Your task to perform on an android device: turn off wifi Image 0: 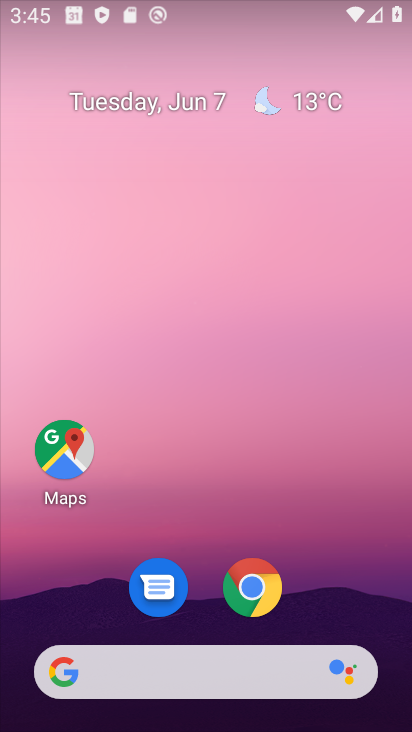
Step 0: drag from (198, 671) to (272, 0)
Your task to perform on an android device: turn off wifi Image 1: 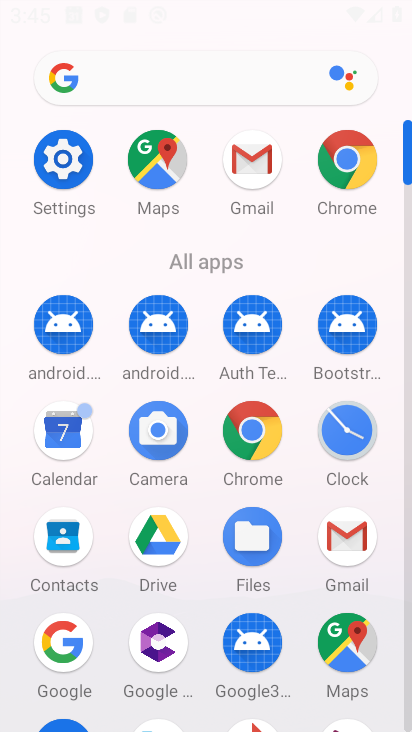
Step 1: click (82, 174)
Your task to perform on an android device: turn off wifi Image 2: 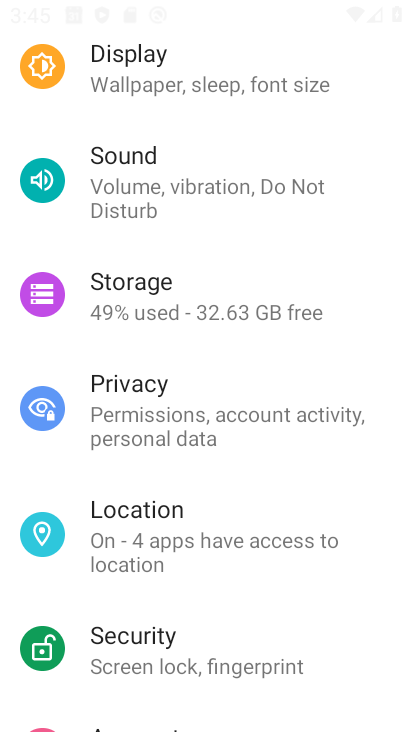
Step 2: drag from (91, 241) to (93, 640)
Your task to perform on an android device: turn off wifi Image 3: 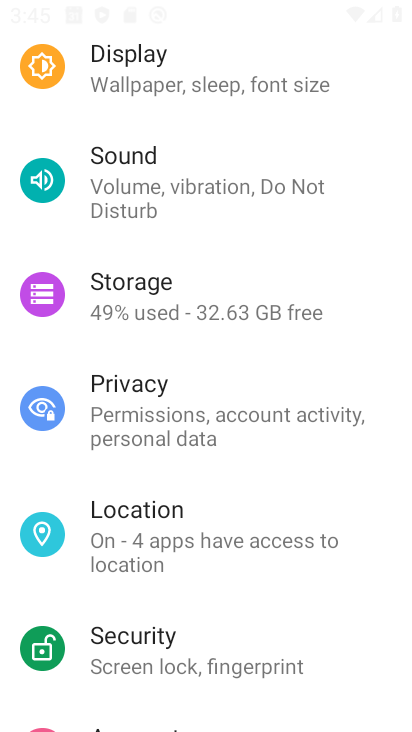
Step 3: drag from (239, 309) to (213, 719)
Your task to perform on an android device: turn off wifi Image 4: 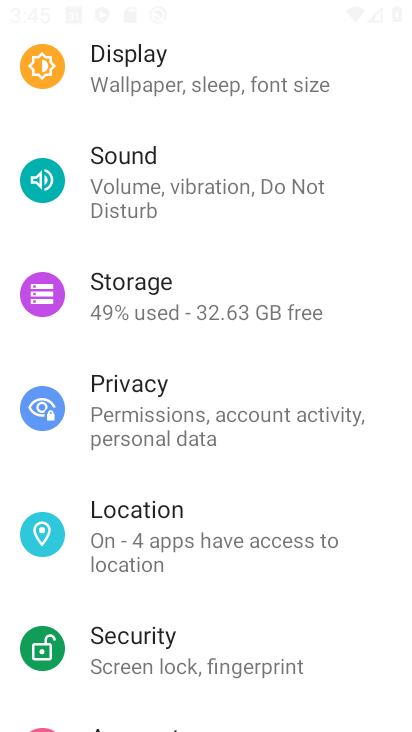
Step 4: drag from (273, 295) to (287, 721)
Your task to perform on an android device: turn off wifi Image 5: 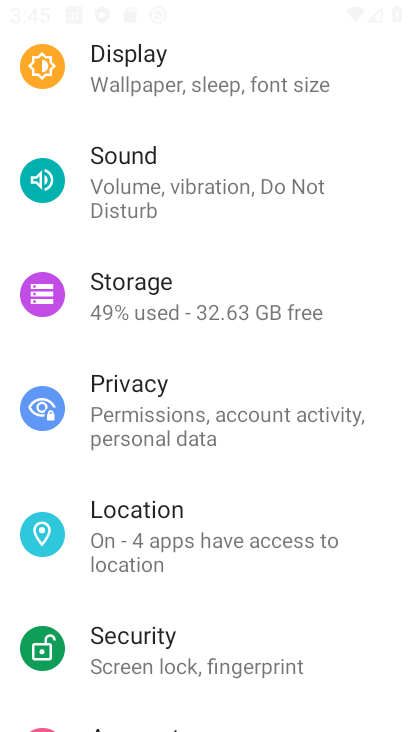
Step 5: drag from (270, 226) to (277, 713)
Your task to perform on an android device: turn off wifi Image 6: 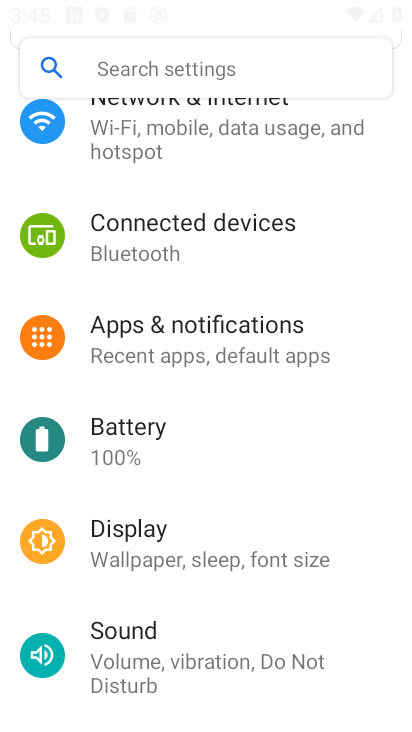
Step 6: drag from (233, 259) to (241, 725)
Your task to perform on an android device: turn off wifi Image 7: 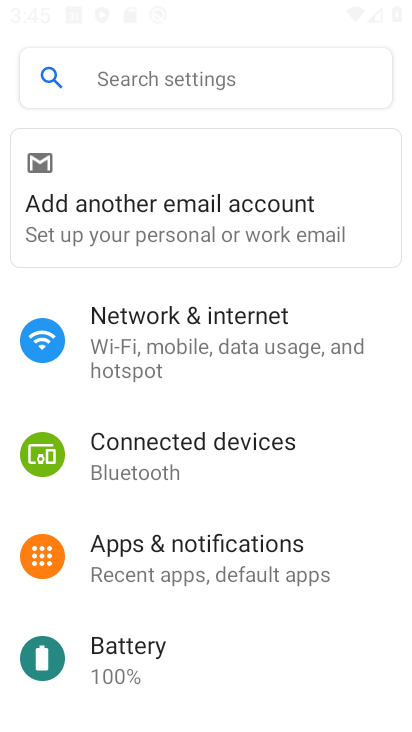
Step 7: click (190, 350)
Your task to perform on an android device: turn off wifi Image 8: 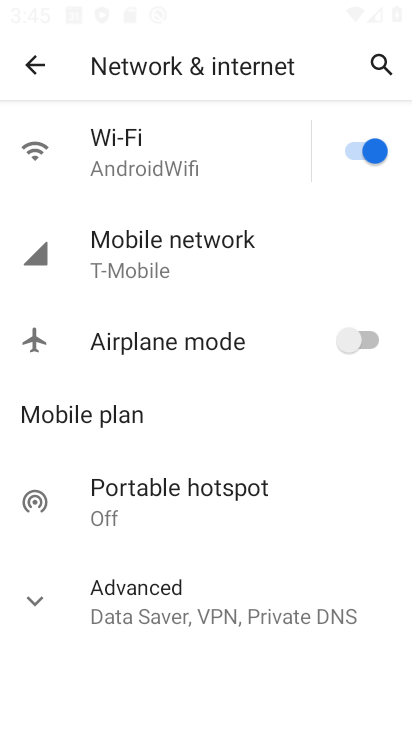
Step 8: click (349, 162)
Your task to perform on an android device: turn off wifi Image 9: 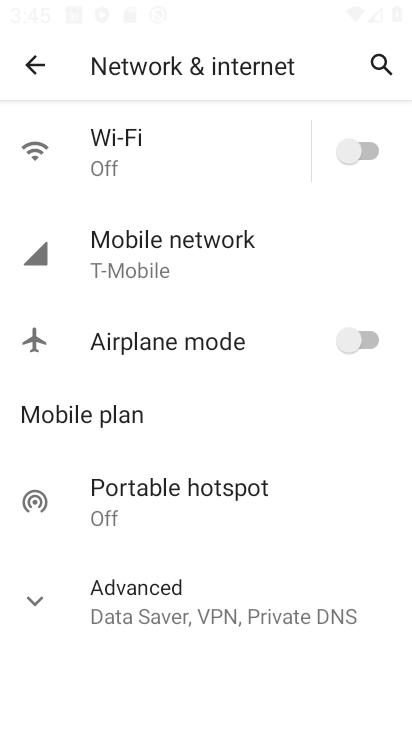
Step 9: task complete